Your task to perform on an android device: Show me productivity apps on the Play Store Image 0: 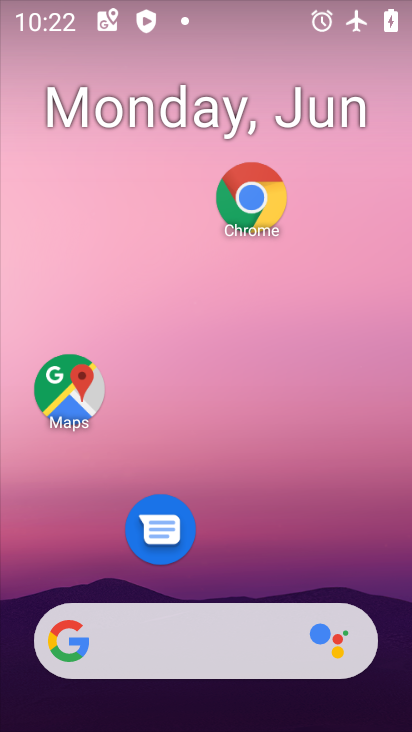
Step 0: drag from (218, 564) to (220, 71)
Your task to perform on an android device: Show me productivity apps on the Play Store Image 1: 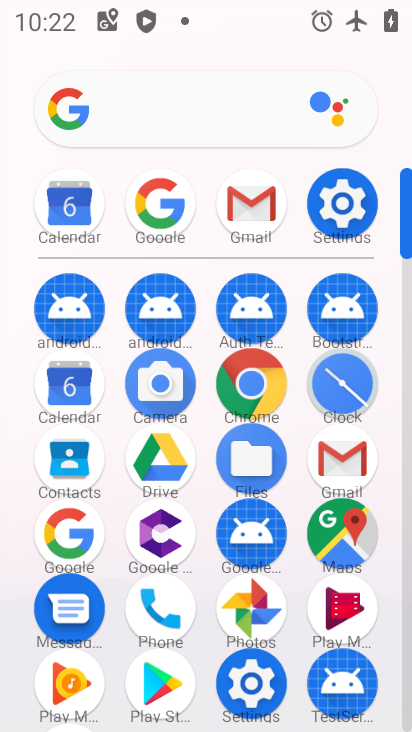
Step 1: click (153, 684)
Your task to perform on an android device: Show me productivity apps on the Play Store Image 2: 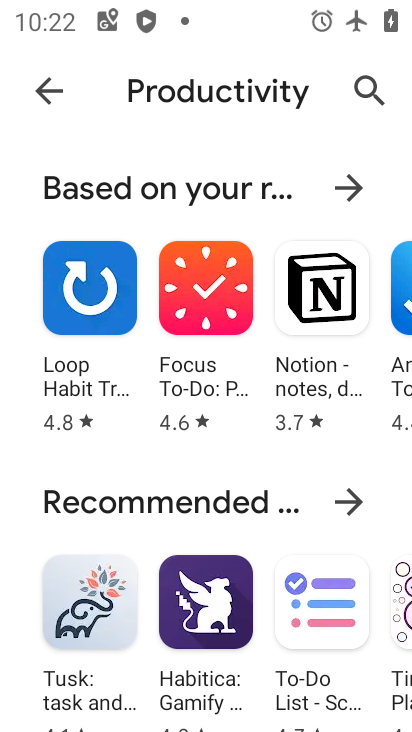
Step 2: task complete